Your task to perform on an android device: Show me recent news Image 0: 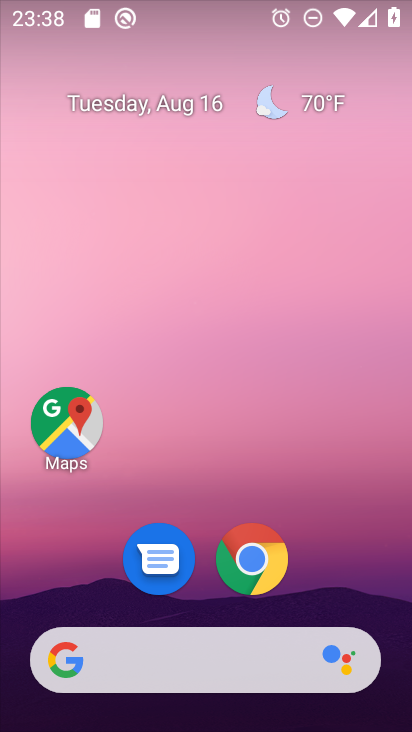
Step 0: click (248, 562)
Your task to perform on an android device: Show me recent news Image 1: 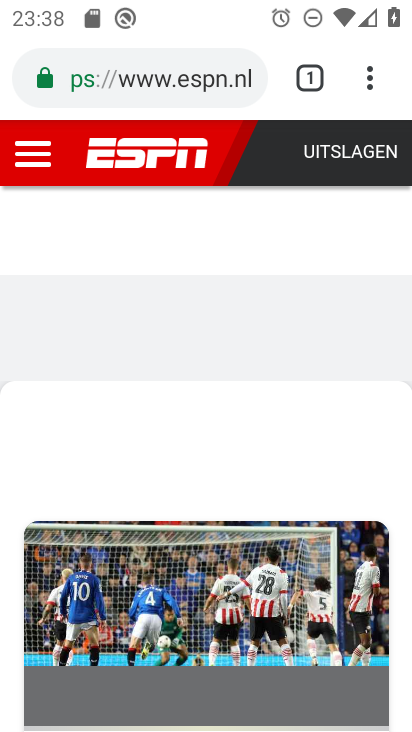
Step 1: click (204, 80)
Your task to perform on an android device: Show me recent news Image 2: 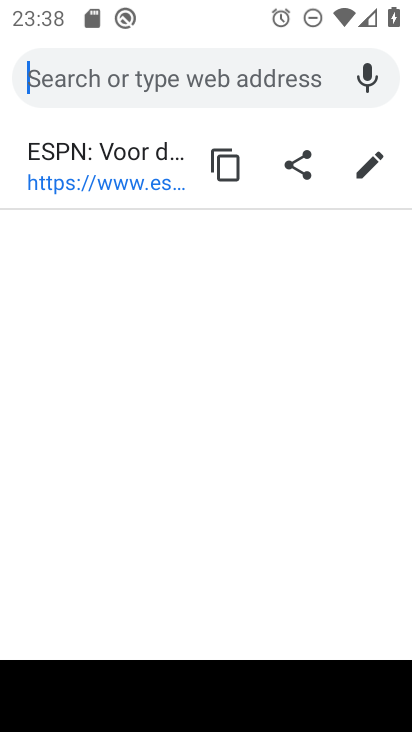
Step 2: type "recent news"
Your task to perform on an android device: Show me recent news Image 3: 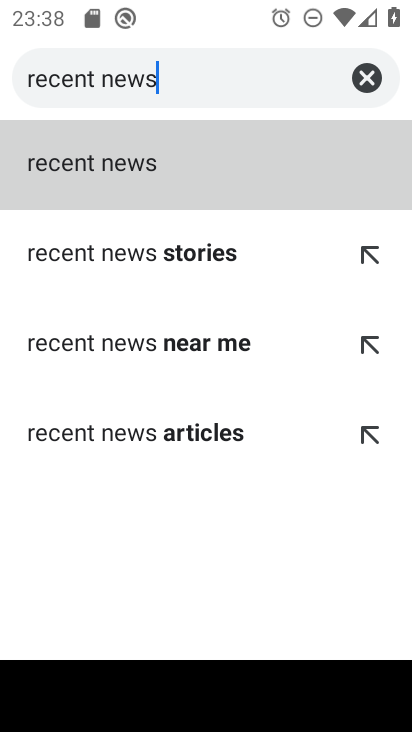
Step 3: click (176, 153)
Your task to perform on an android device: Show me recent news Image 4: 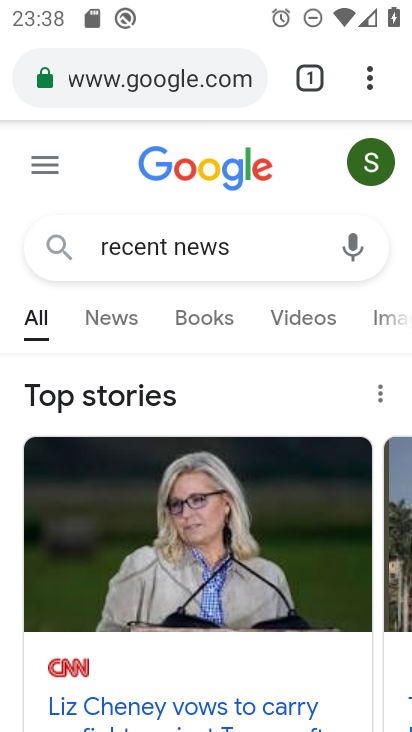
Step 4: drag from (211, 673) to (223, 451)
Your task to perform on an android device: Show me recent news Image 5: 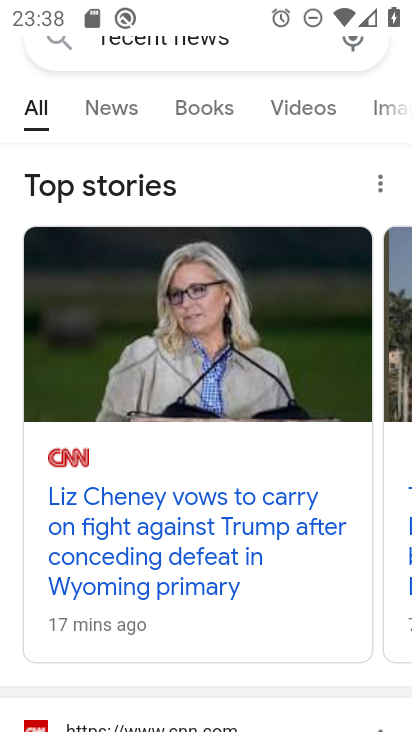
Step 5: click (192, 576)
Your task to perform on an android device: Show me recent news Image 6: 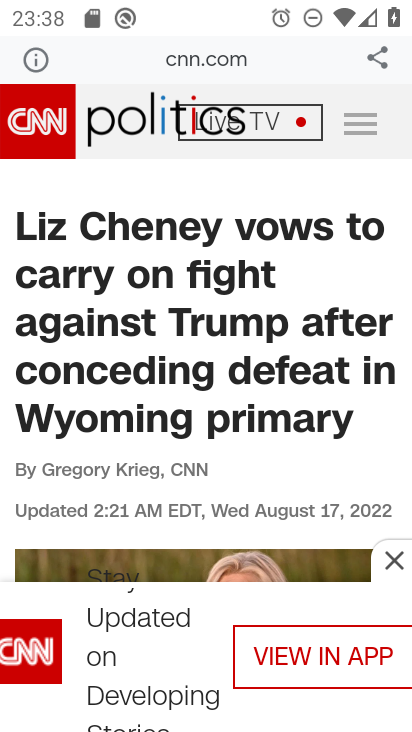
Step 6: task complete